Your task to perform on an android device: Open display settings Image 0: 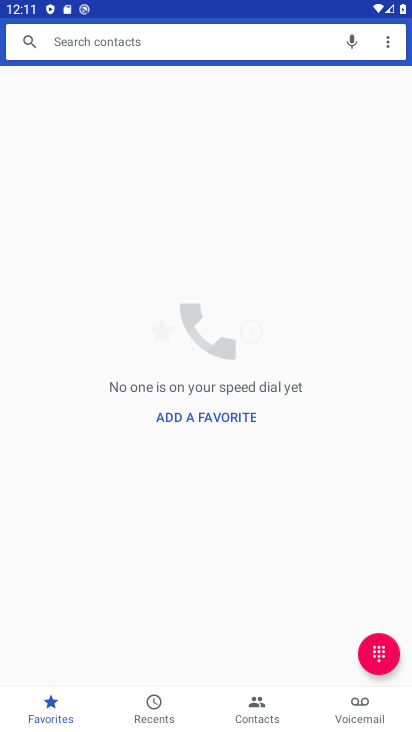
Step 0: press home button
Your task to perform on an android device: Open display settings Image 1: 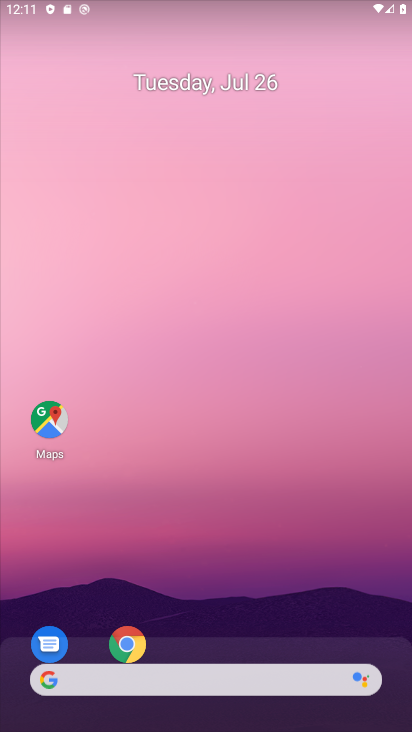
Step 1: drag from (301, 625) to (264, 311)
Your task to perform on an android device: Open display settings Image 2: 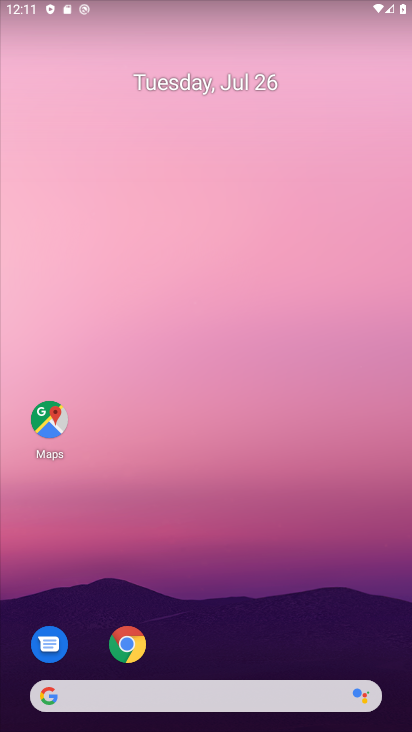
Step 2: drag from (223, 545) to (158, 132)
Your task to perform on an android device: Open display settings Image 3: 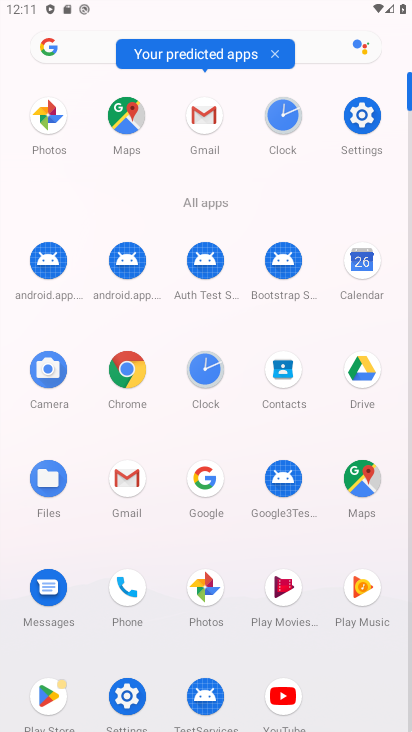
Step 3: click (356, 107)
Your task to perform on an android device: Open display settings Image 4: 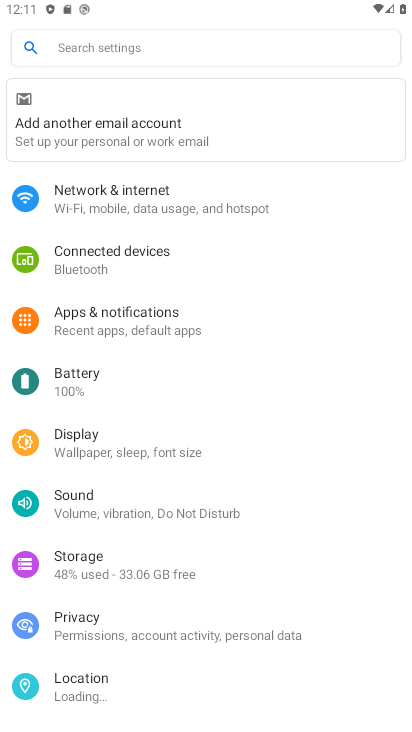
Step 4: click (136, 438)
Your task to perform on an android device: Open display settings Image 5: 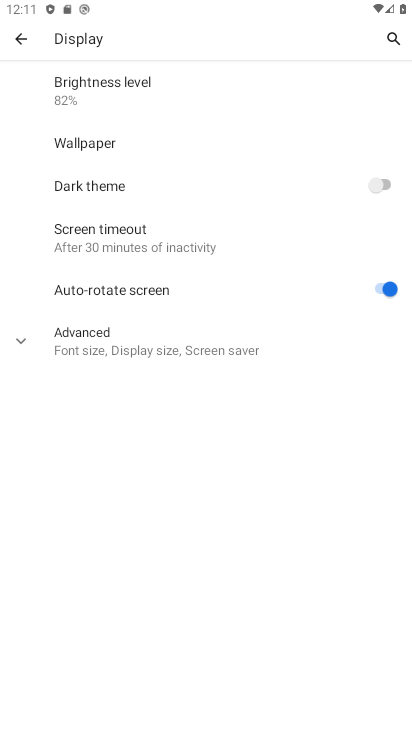
Step 5: task complete